Your task to perform on an android device: Go to Android settings Image 0: 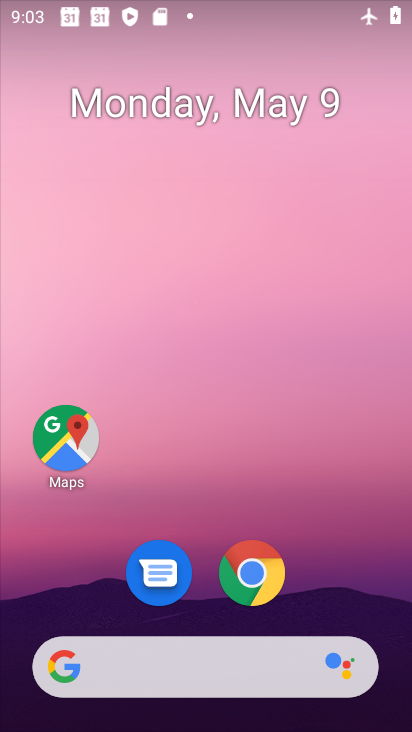
Step 0: drag from (340, 601) to (287, 18)
Your task to perform on an android device: Go to Android settings Image 1: 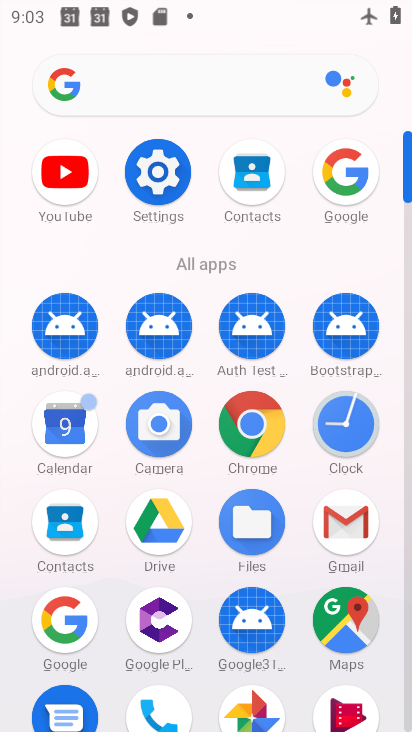
Step 1: click (164, 179)
Your task to perform on an android device: Go to Android settings Image 2: 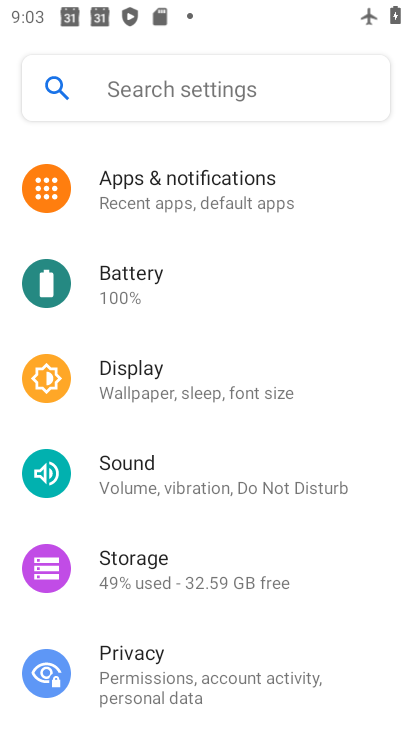
Step 2: drag from (195, 539) to (189, 367)
Your task to perform on an android device: Go to Android settings Image 3: 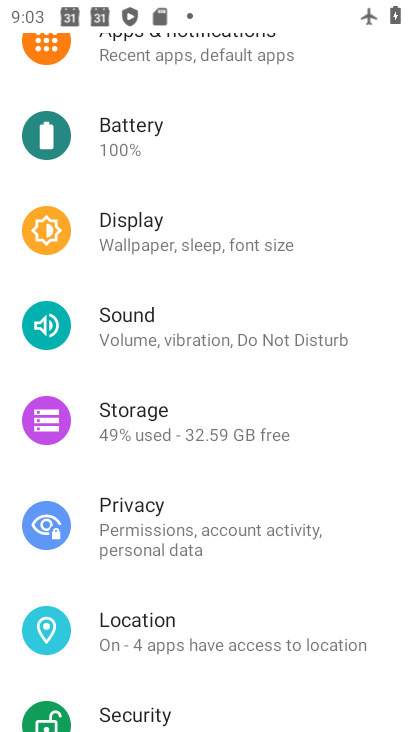
Step 3: drag from (223, 523) to (215, 397)
Your task to perform on an android device: Go to Android settings Image 4: 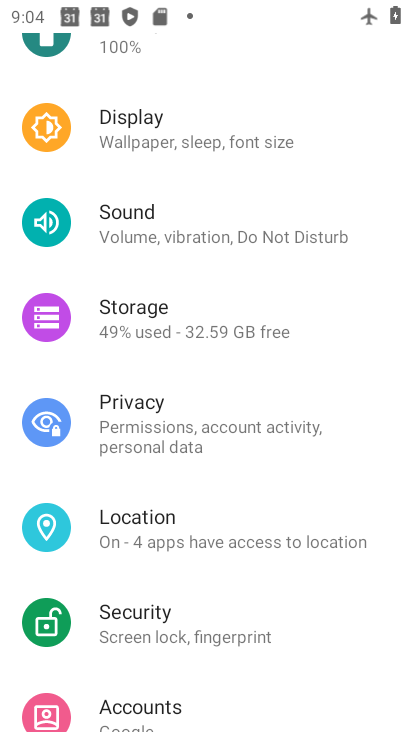
Step 4: drag from (243, 586) to (233, 502)
Your task to perform on an android device: Go to Android settings Image 5: 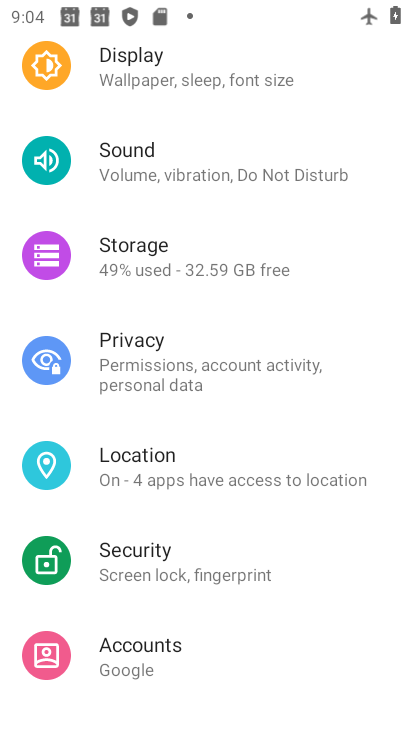
Step 5: drag from (250, 548) to (223, 433)
Your task to perform on an android device: Go to Android settings Image 6: 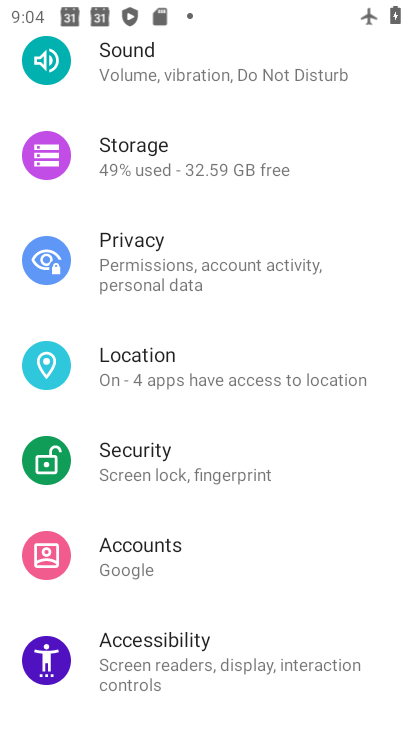
Step 6: drag from (263, 572) to (253, 422)
Your task to perform on an android device: Go to Android settings Image 7: 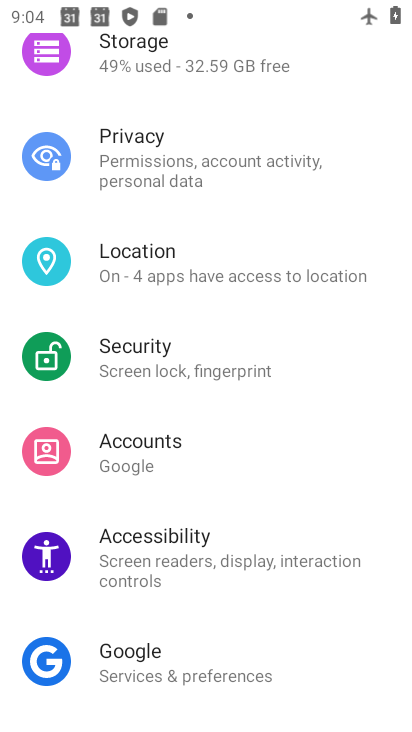
Step 7: drag from (270, 600) to (231, 462)
Your task to perform on an android device: Go to Android settings Image 8: 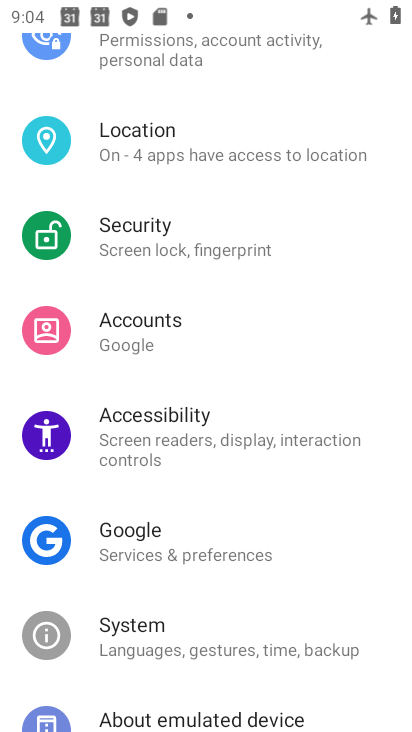
Step 8: drag from (236, 615) to (217, 394)
Your task to perform on an android device: Go to Android settings Image 9: 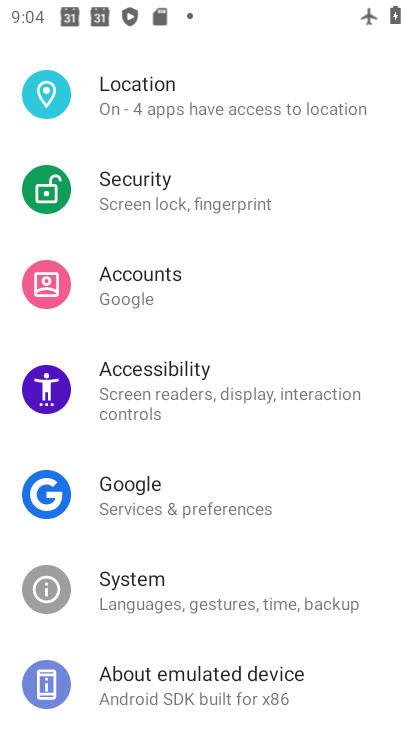
Step 9: click (249, 673)
Your task to perform on an android device: Go to Android settings Image 10: 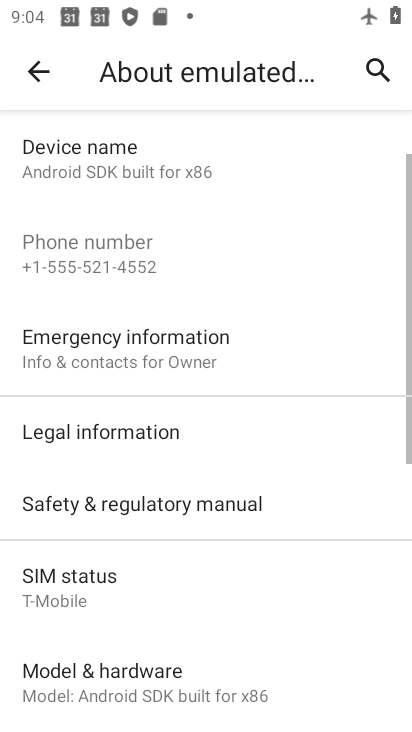
Step 10: task complete